Your task to perform on an android device: delete location history Image 0: 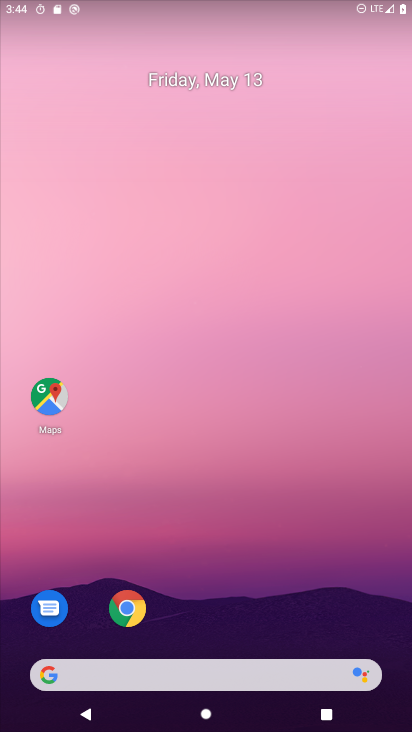
Step 0: click (43, 414)
Your task to perform on an android device: delete location history Image 1: 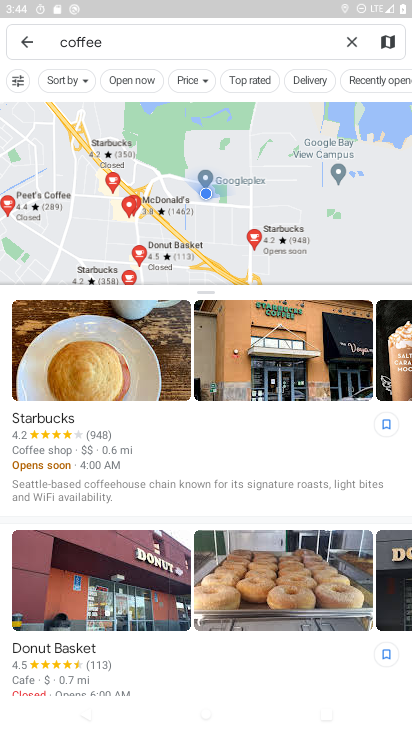
Step 1: click (24, 43)
Your task to perform on an android device: delete location history Image 2: 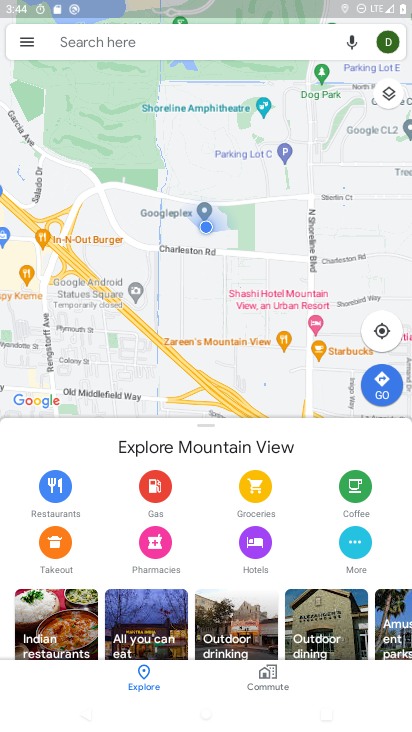
Step 2: click (24, 43)
Your task to perform on an android device: delete location history Image 3: 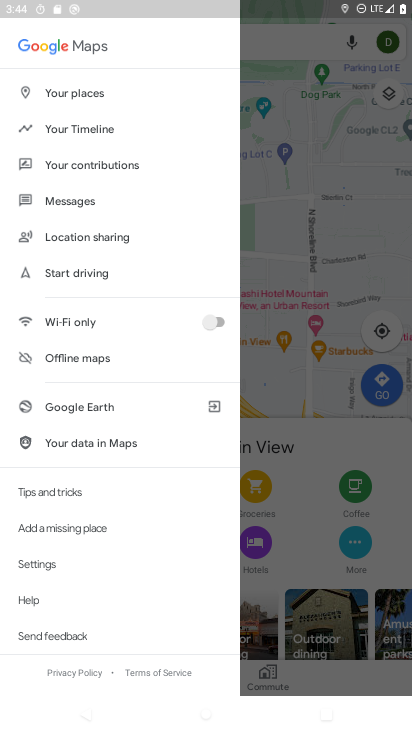
Step 3: click (87, 123)
Your task to perform on an android device: delete location history Image 4: 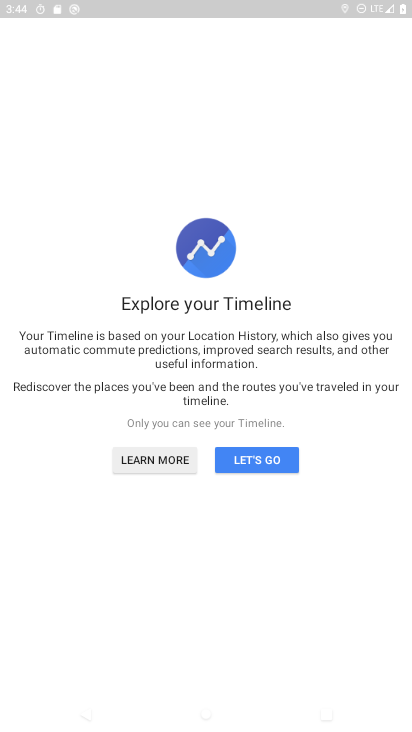
Step 4: click (271, 460)
Your task to perform on an android device: delete location history Image 5: 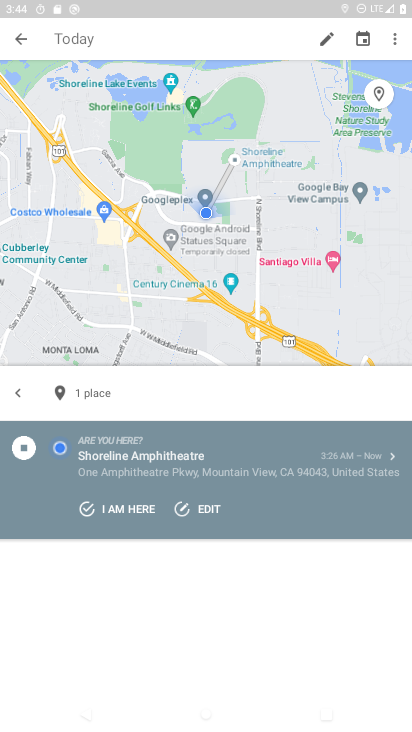
Step 5: click (396, 39)
Your task to perform on an android device: delete location history Image 6: 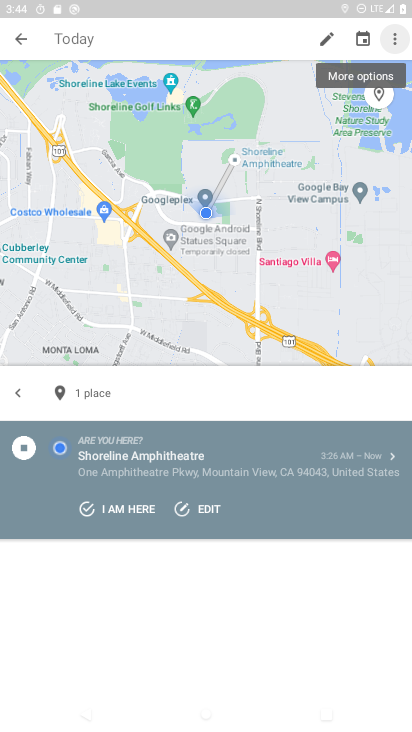
Step 6: click (396, 39)
Your task to perform on an android device: delete location history Image 7: 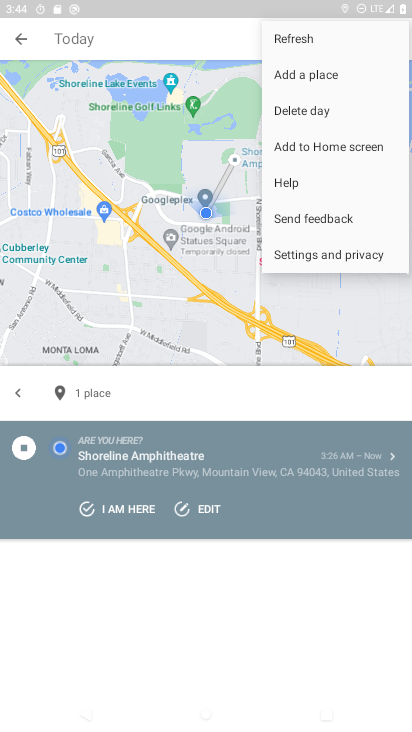
Step 7: click (282, 261)
Your task to perform on an android device: delete location history Image 8: 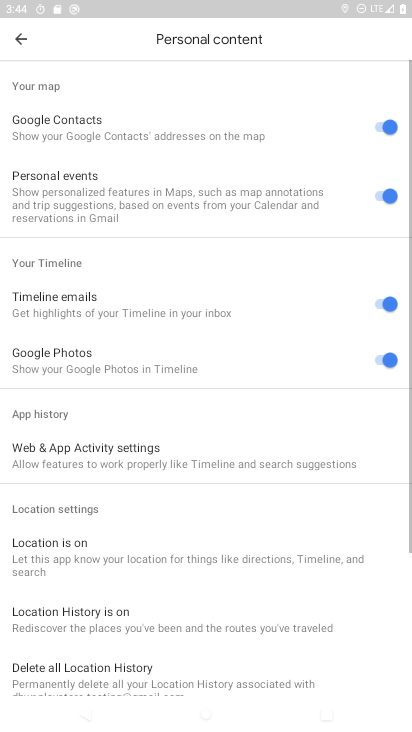
Step 8: drag from (181, 623) to (181, 355)
Your task to perform on an android device: delete location history Image 9: 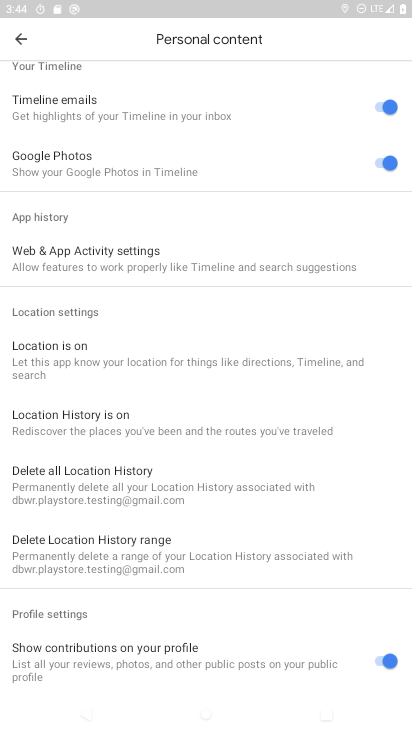
Step 9: click (142, 484)
Your task to perform on an android device: delete location history Image 10: 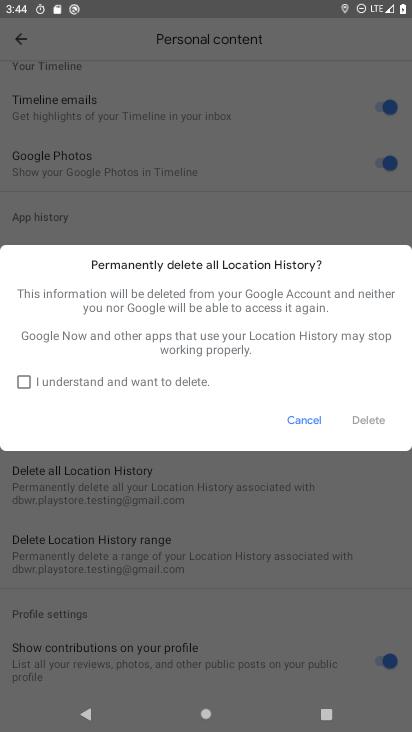
Step 10: click (27, 383)
Your task to perform on an android device: delete location history Image 11: 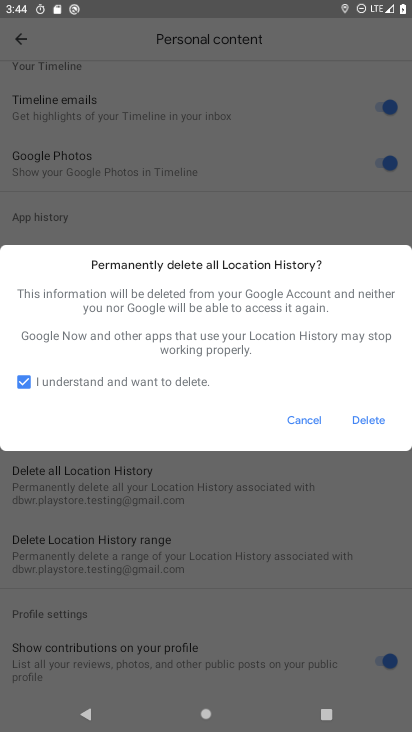
Step 11: click (371, 419)
Your task to perform on an android device: delete location history Image 12: 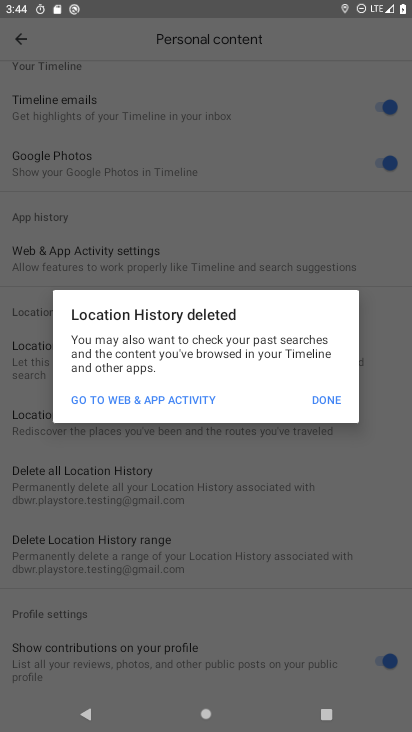
Step 12: click (316, 403)
Your task to perform on an android device: delete location history Image 13: 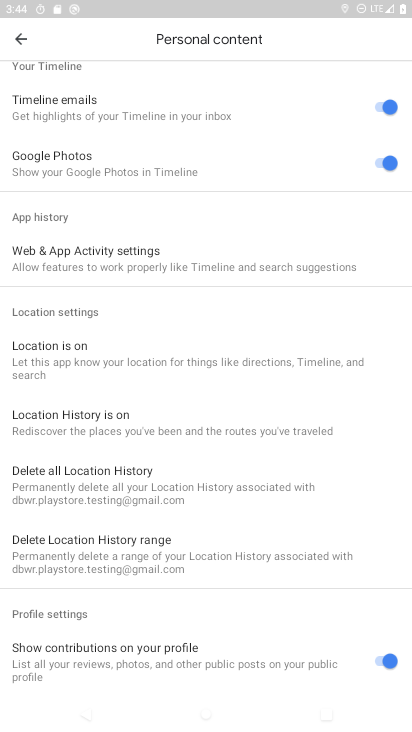
Step 13: task complete